Your task to perform on an android device: turn off sleep mode Image 0: 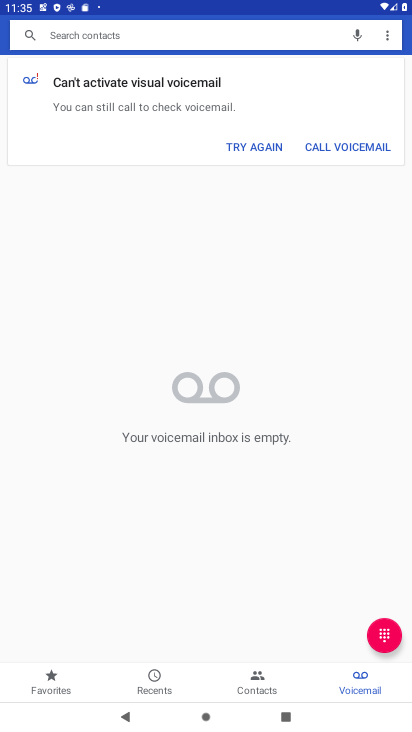
Step 0: press home button
Your task to perform on an android device: turn off sleep mode Image 1: 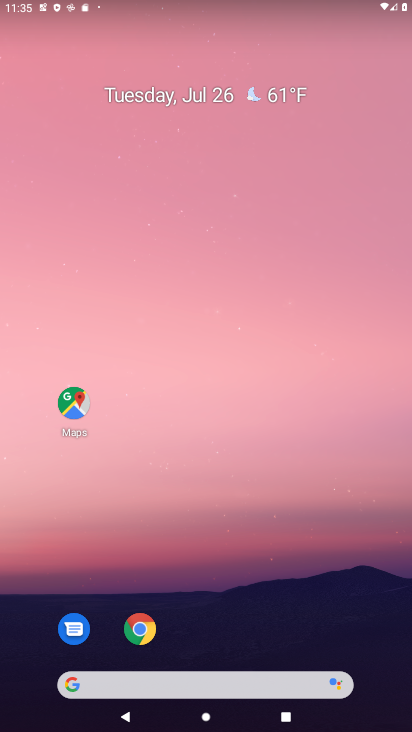
Step 1: drag from (220, 631) to (187, 3)
Your task to perform on an android device: turn off sleep mode Image 2: 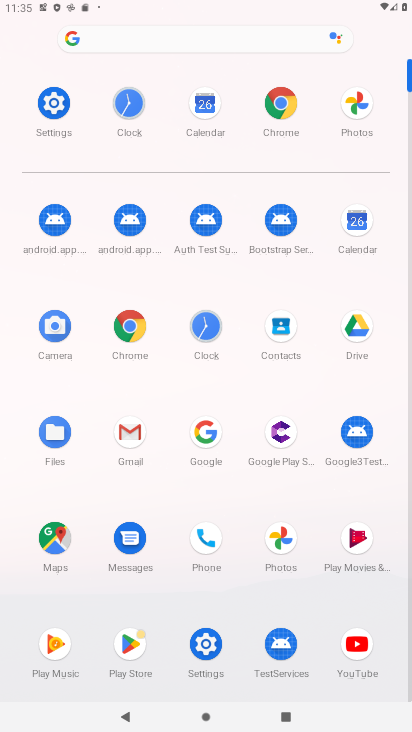
Step 2: click (47, 122)
Your task to perform on an android device: turn off sleep mode Image 3: 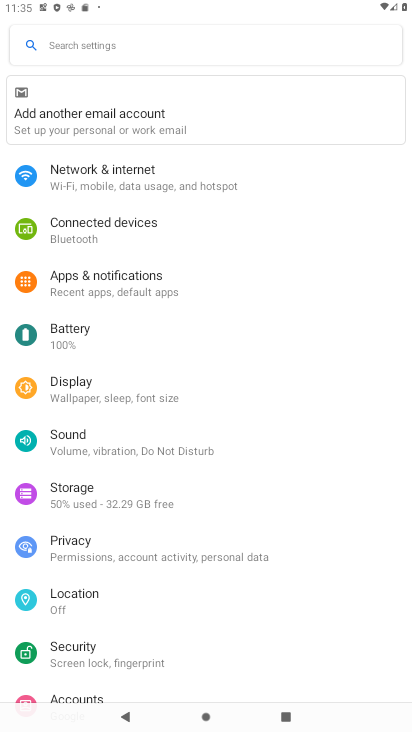
Step 3: click (159, 387)
Your task to perform on an android device: turn off sleep mode Image 4: 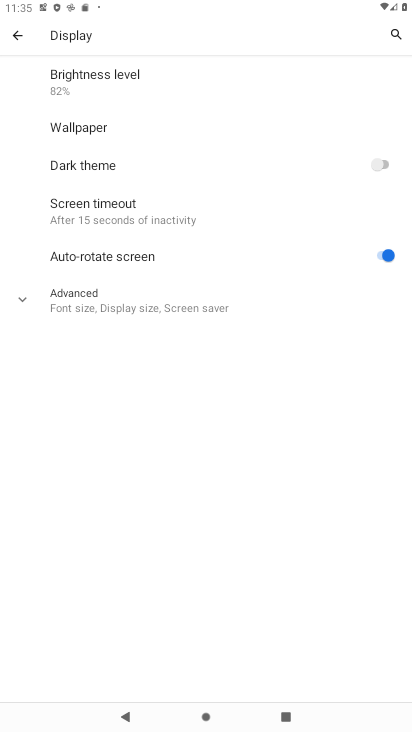
Step 4: click (218, 305)
Your task to perform on an android device: turn off sleep mode Image 5: 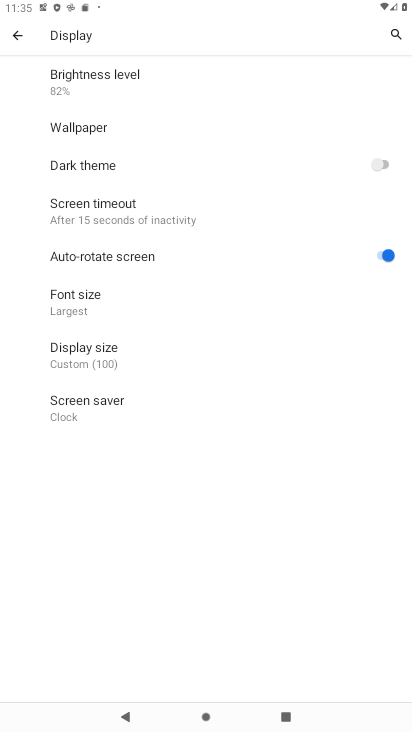
Step 5: click (126, 197)
Your task to perform on an android device: turn off sleep mode Image 6: 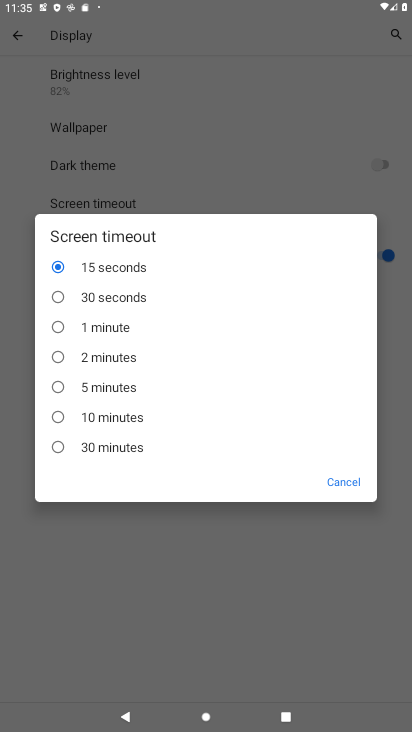
Step 6: click (118, 281)
Your task to perform on an android device: turn off sleep mode Image 7: 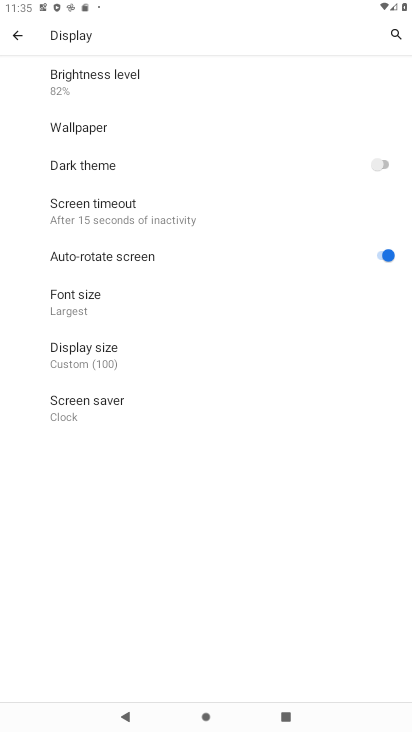
Step 7: task complete